Your task to perform on an android device: Open Google Image 0: 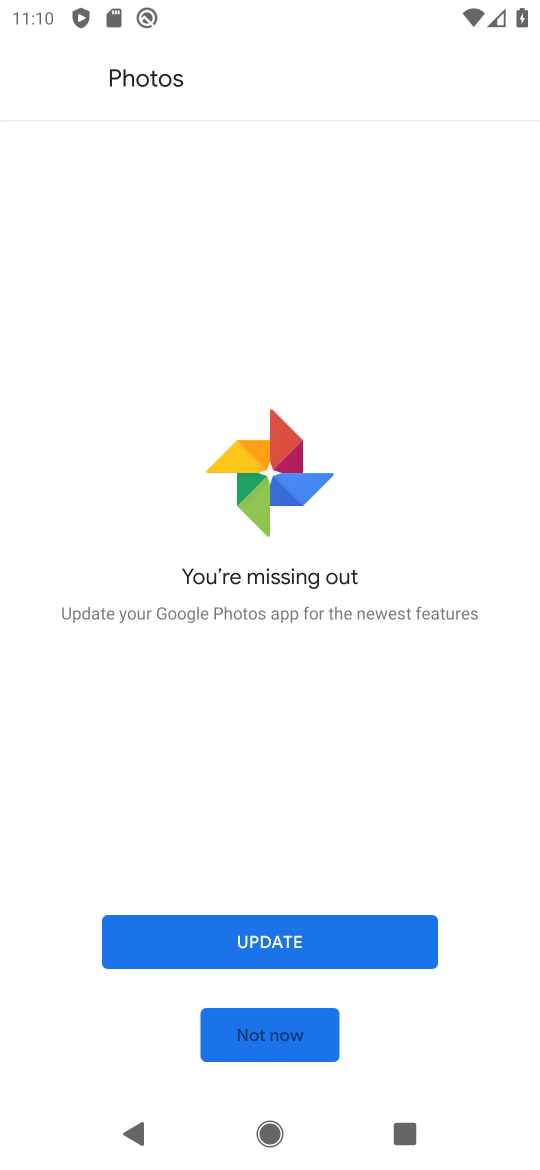
Step 0: press back button
Your task to perform on an android device: Open Google Image 1: 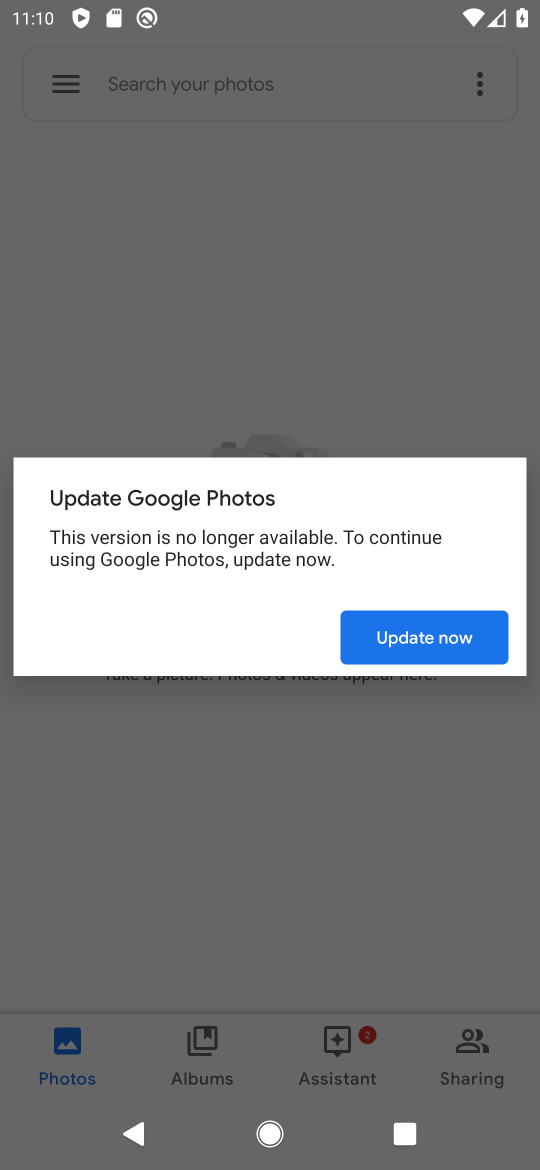
Step 1: press home button
Your task to perform on an android device: Open Google Image 2: 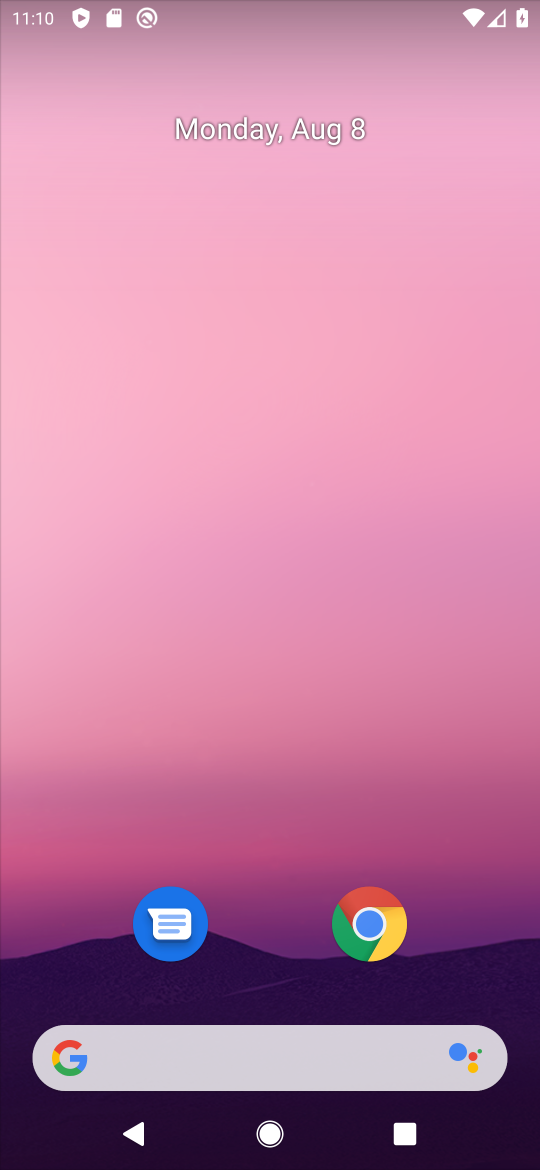
Step 2: drag from (253, 1001) to (245, 111)
Your task to perform on an android device: Open Google Image 3: 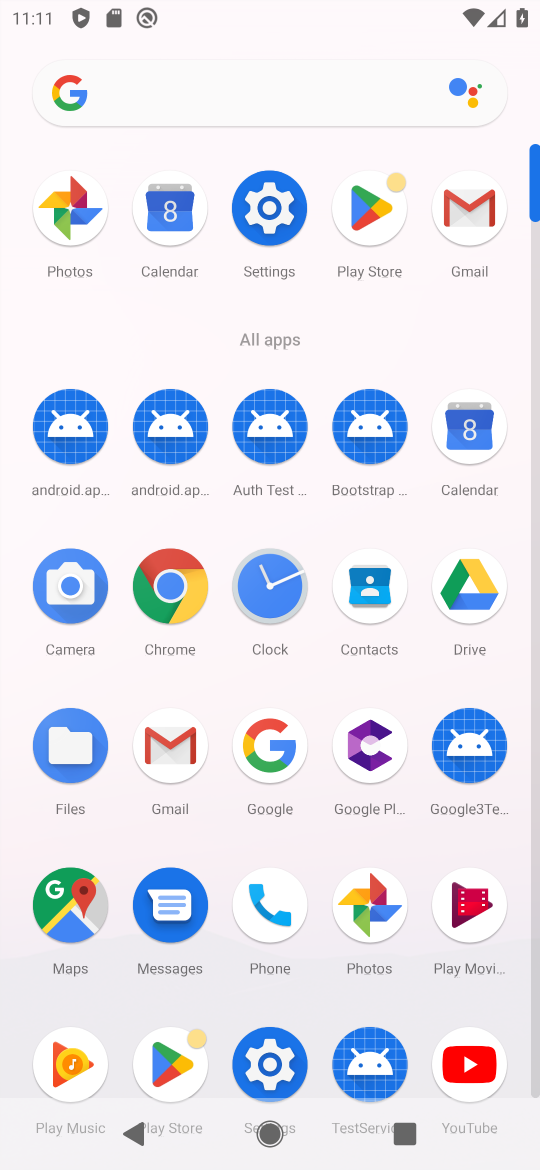
Step 3: click (267, 748)
Your task to perform on an android device: Open Google Image 4: 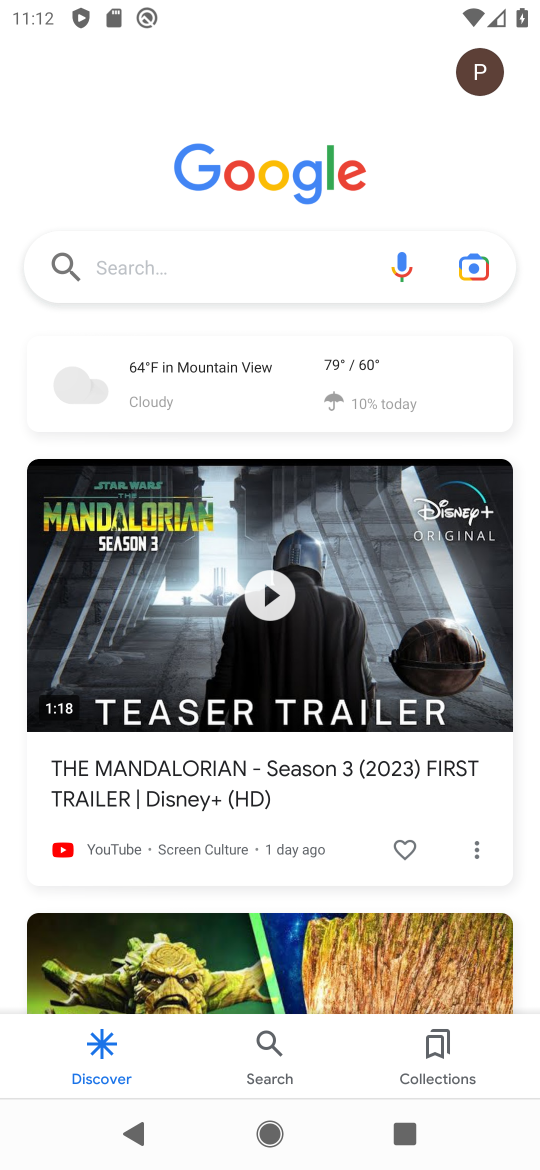
Step 4: task complete